Your task to perform on an android device: Go to battery settings Image 0: 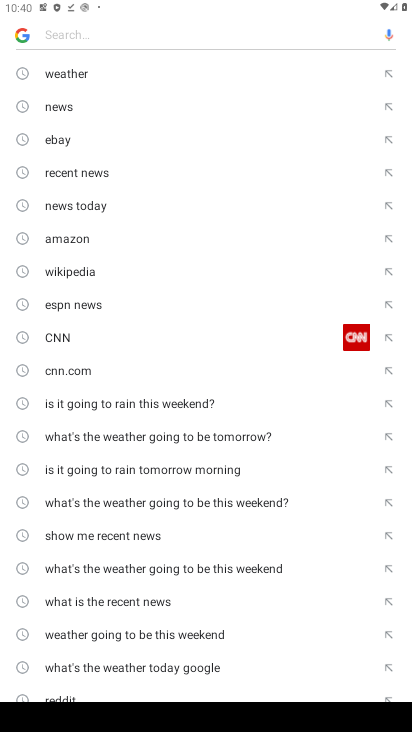
Step 0: press back button
Your task to perform on an android device: Go to battery settings Image 1: 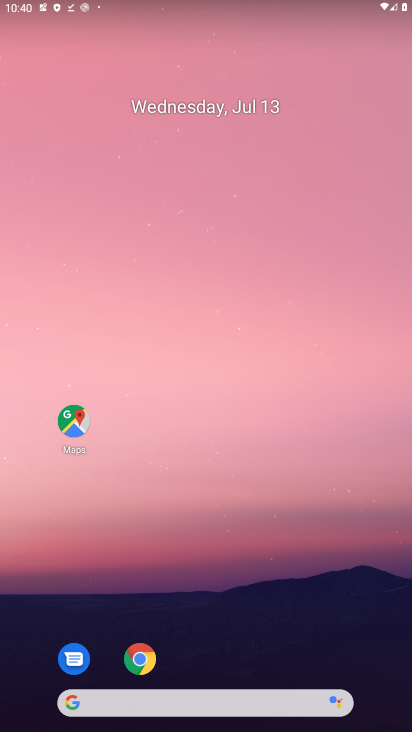
Step 1: drag from (223, 674) to (164, 268)
Your task to perform on an android device: Go to battery settings Image 2: 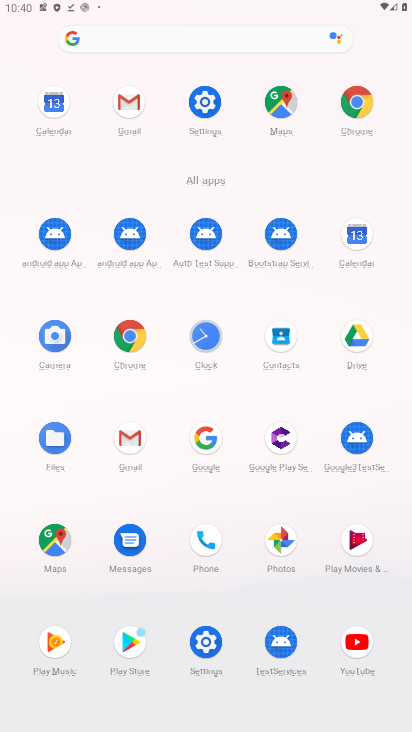
Step 2: click (205, 636)
Your task to perform on an android device: Go to battery settings Image 3: 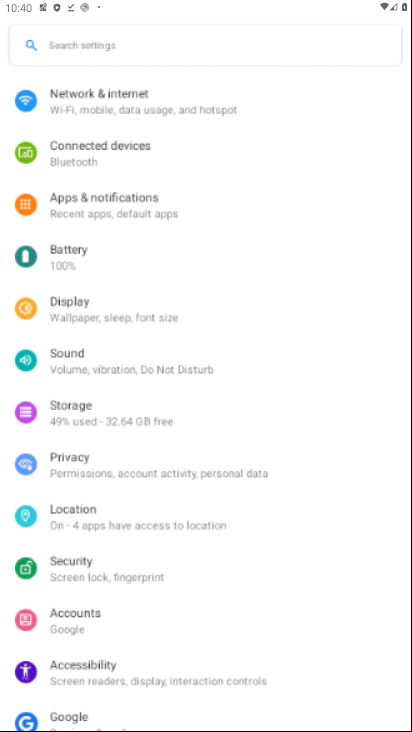
Step 3: click (207, 632)
Your task to perform on an android device: Go to battery settings Image 4: 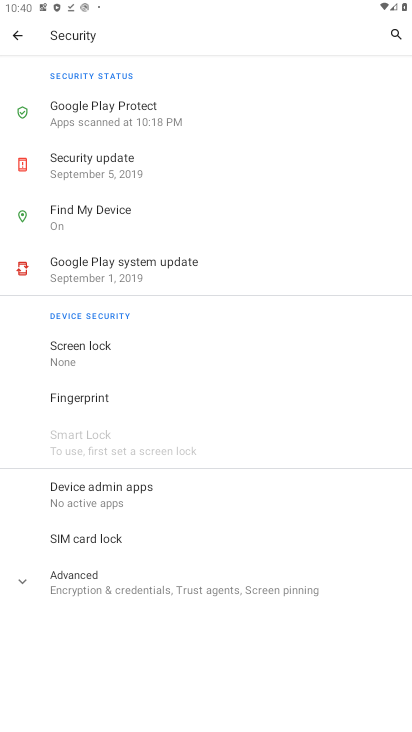
Step 4: click (17, 30)
Your task to perform on an android device: Go to battery settings Image 5: 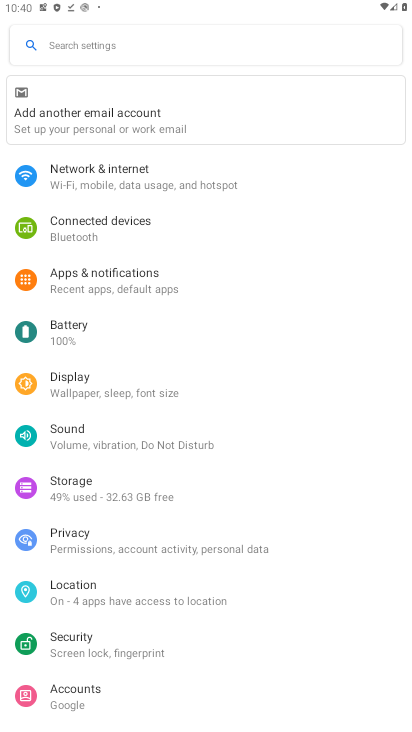
Step 5: click (54, 328)
Your task to perform on an android device: Go to battery settings Image 6: 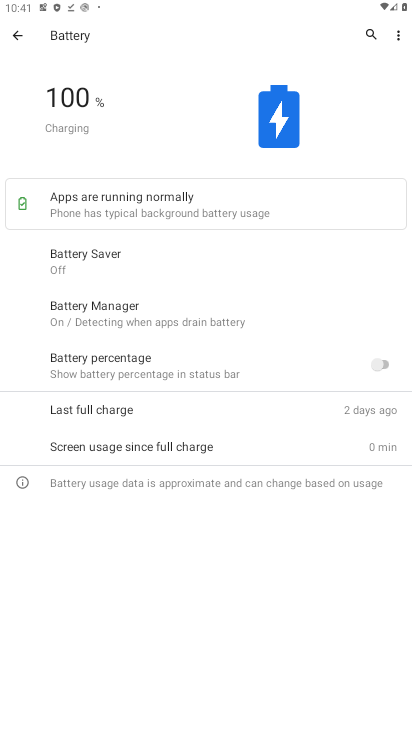
Step 6: task complete